Your task to perform on an android device: Show me popular games on the Play Store Image 0: 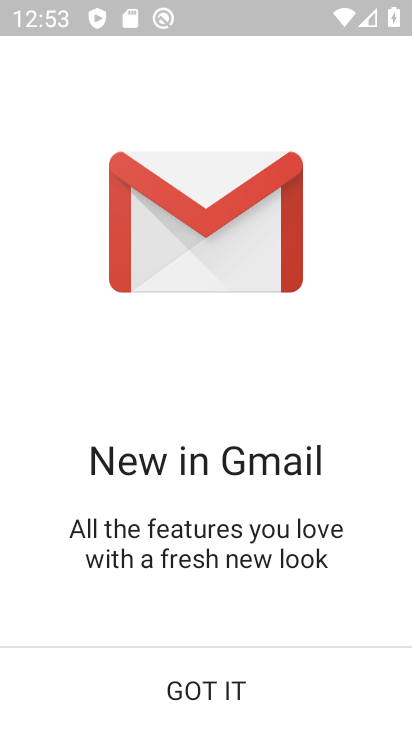
Step 0: click (272, 80)
Your task to perform on an android device: Show me popular games on the Play Store Image 1: 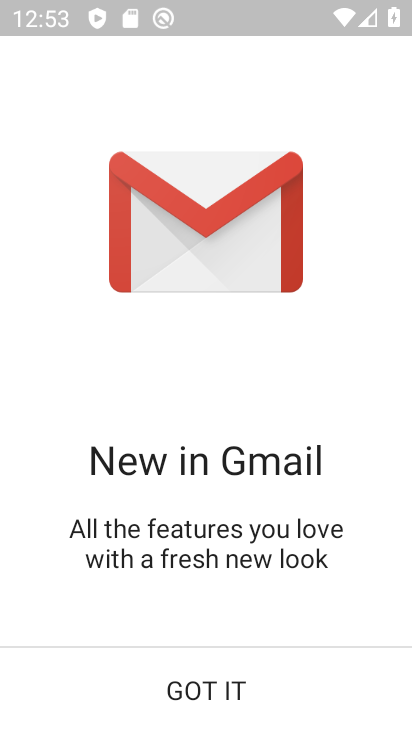
Step 1: press home button
Your task to perform on an android device: Show me popular games on the Play Store Image 2: 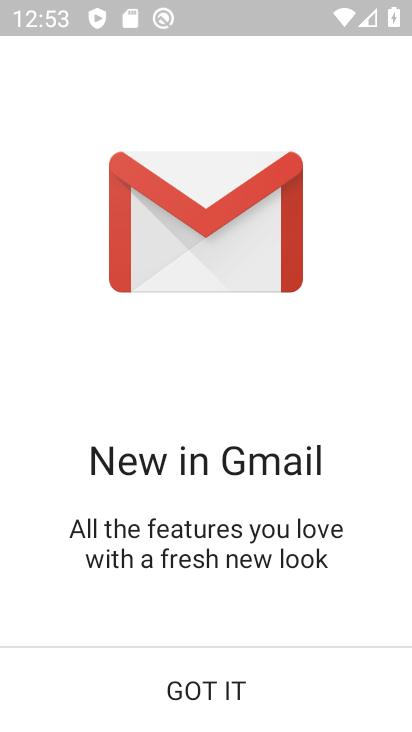
Step 2: press home button
Your task to perform on an android device: Show me popular games on the Play Store Image 3: 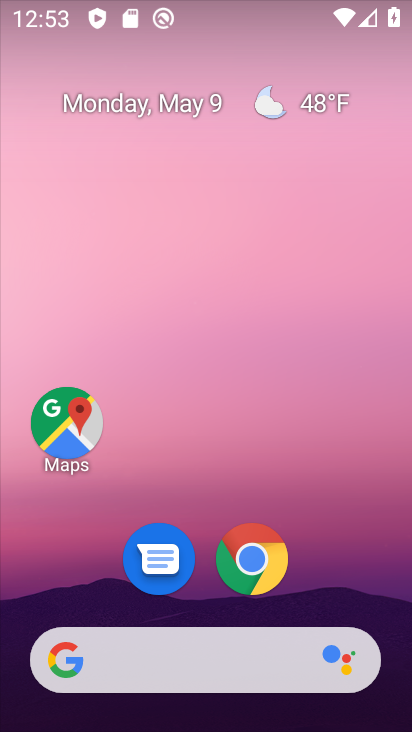
Step 3: drag from (201, 623) to (268, 133)
Your task to perform on an android device: Show me popular games on the Play Store Image 4: 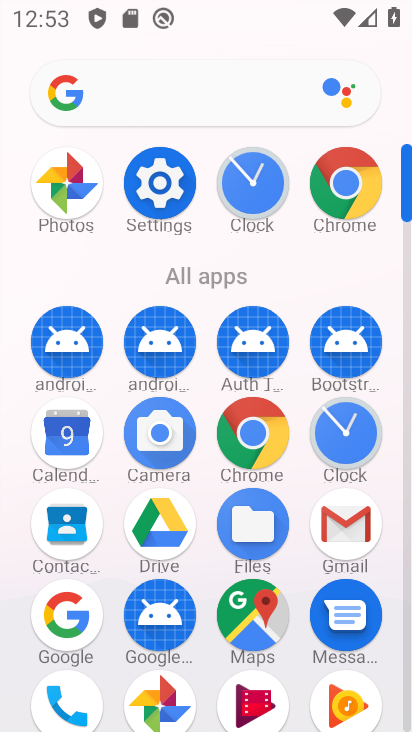
Step 4: drag from (215, 705) to (204, 260)
Your task to perform on an android device: Show me popular games on the Play Store Image 5: 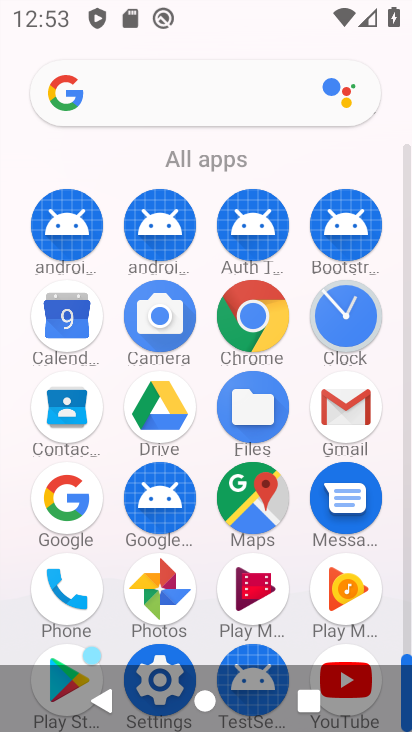
Step 5: drag from (199, 644) to (222, 258)
Your task to perform on an android device: Show me popular games on the Play Store Image 6: 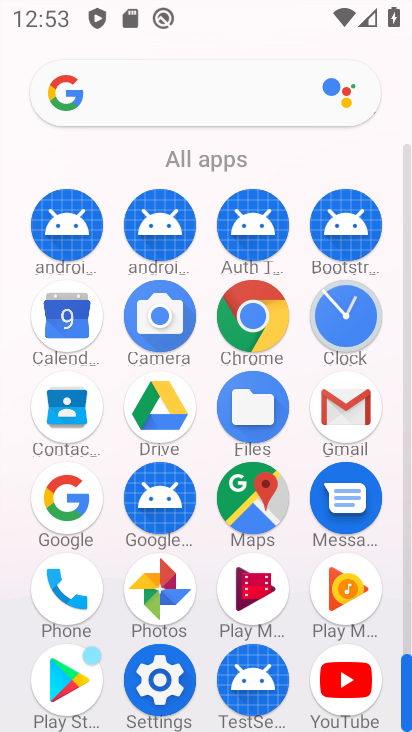
Step 6: click (84, 676)
Your task to perform on an android device: Show me popular games on the Play Store Image 7: 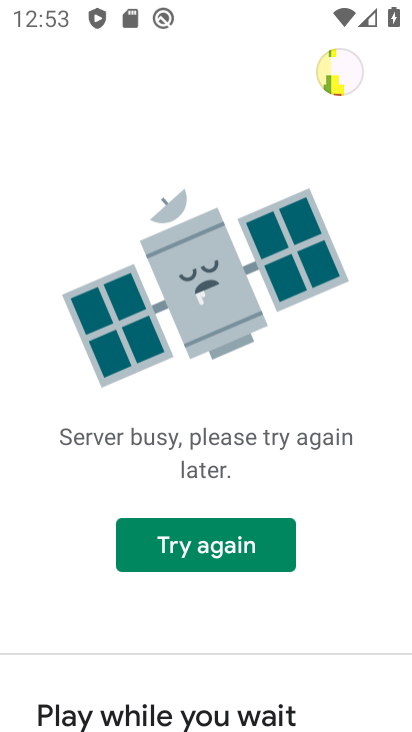
Step 7: click (358, 392)
Your task to perform on an android device: Show me popular games on the Play Store Image 8: 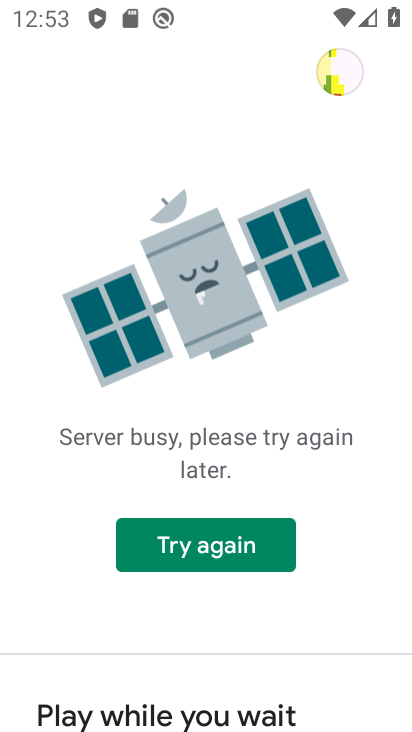
Step 8: click (358, 392)
Your task to perform on an android device: Show me popular games on the Play Store Image 9: 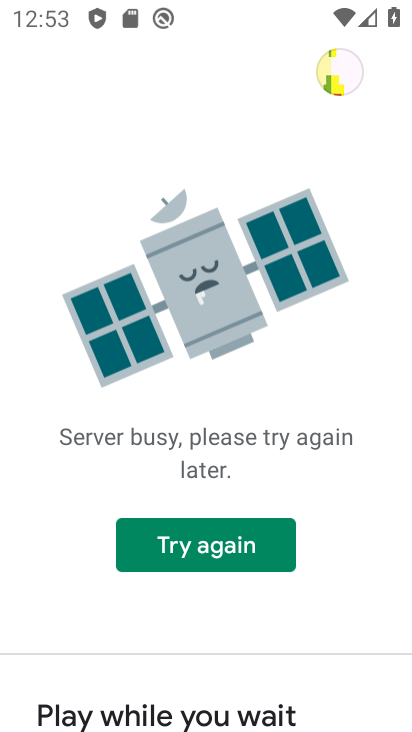
Step 9: click (358, 392)
Your task to perform on an android device: Show me popular games on the Play Store Image 10: 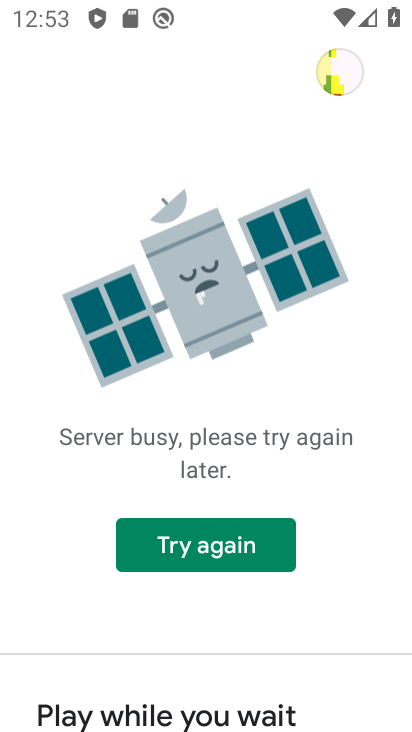
Step 10: task complete